Your task to perform on an android device: Open privacy settings Image 0: 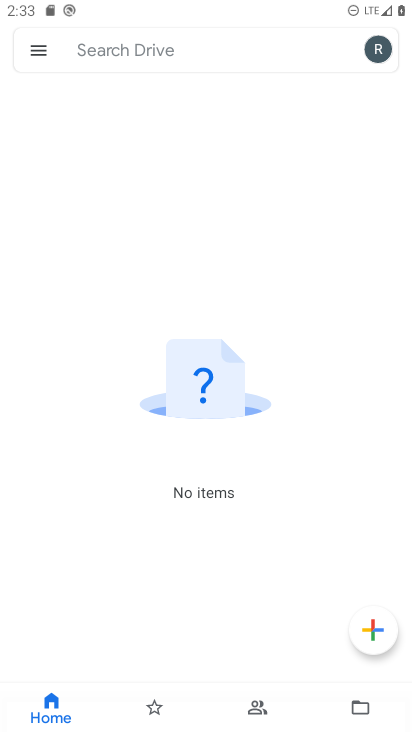
Step 0: press home button
Your task to perform on an android device: Open privacy settings Image 1: 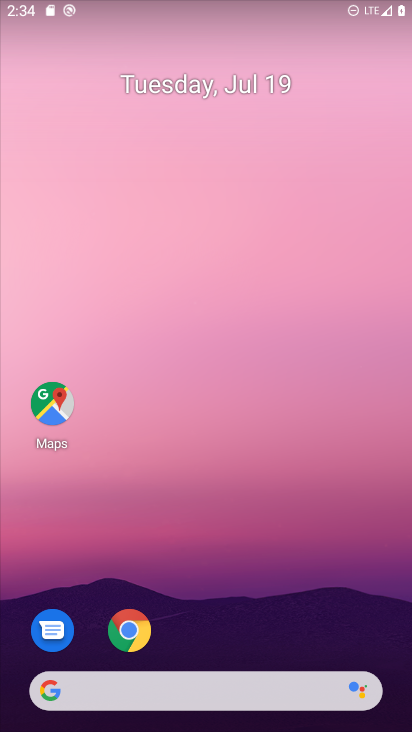
Step 1: drag from (364, 635) to (325, 124)
Your task to perform on an android device: Open privacy settings Image 2: 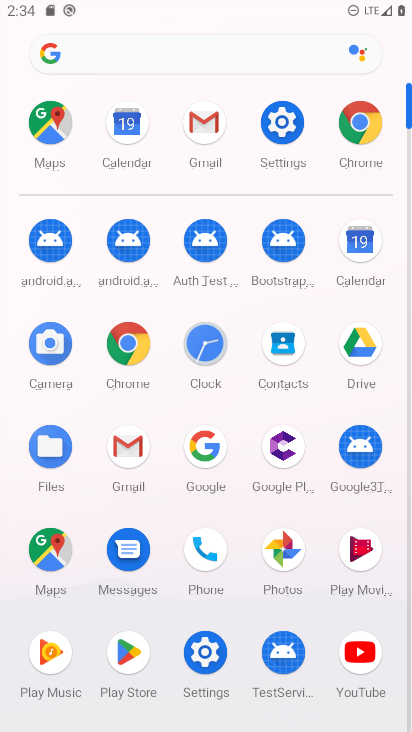
Step 2: click (204, 654)
Your task to perform on an android device: Open privacy settings Image 3: 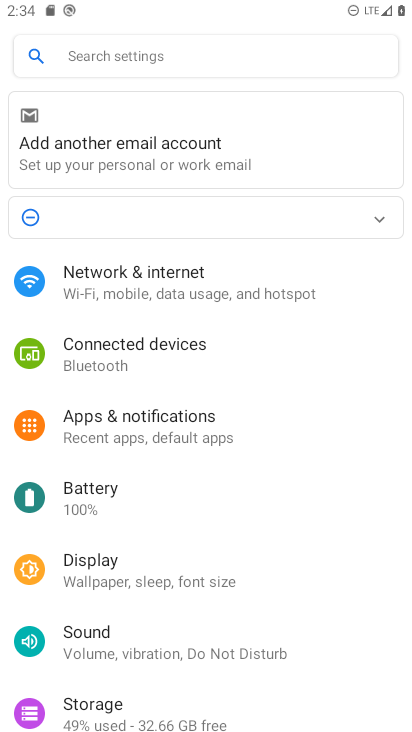
Step 3: drag from (278, 610) to (274, 208)
Your task to perform on an android device: Open privacy settings Image 4: 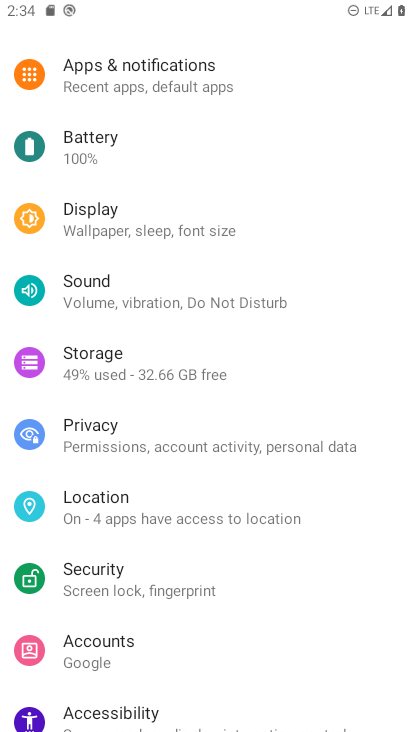
Step 4: click (91, 433)
Your task to perform on an android device: Open privacy settings Image 5: 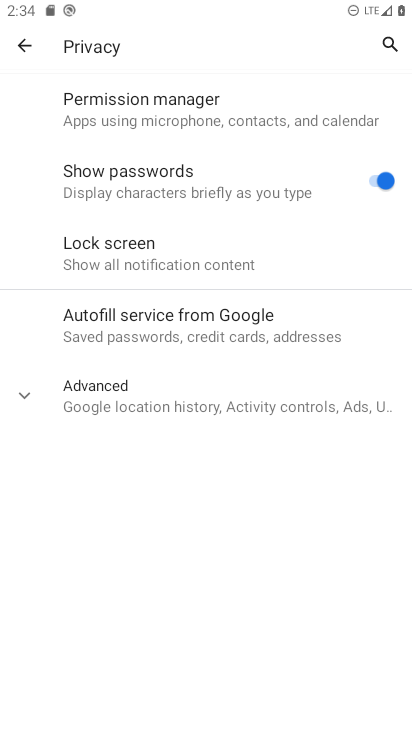
Step 5: click (21, 390)
Your task to perform on an android device: Open privacy settings Image 6: 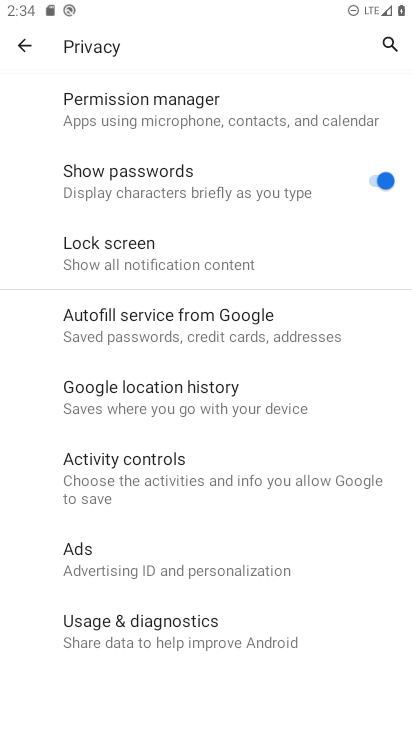
Step 6: task complete